Your task to perform on an android device: find which apps use the phone's location Image 0: 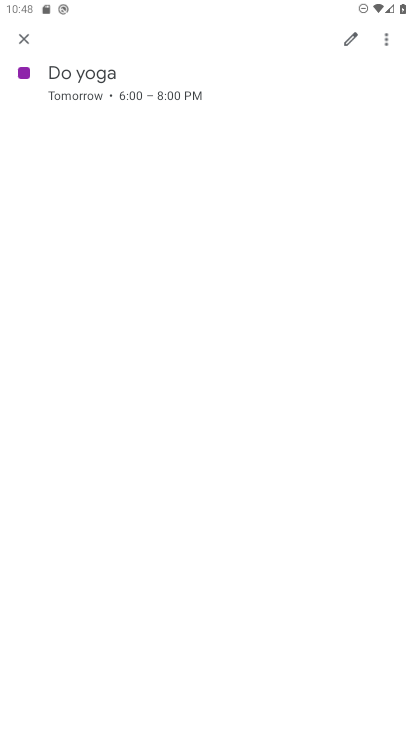
Step 0: press home button
Your task to perform on an android device: find which apps use the phone's location Image 1: 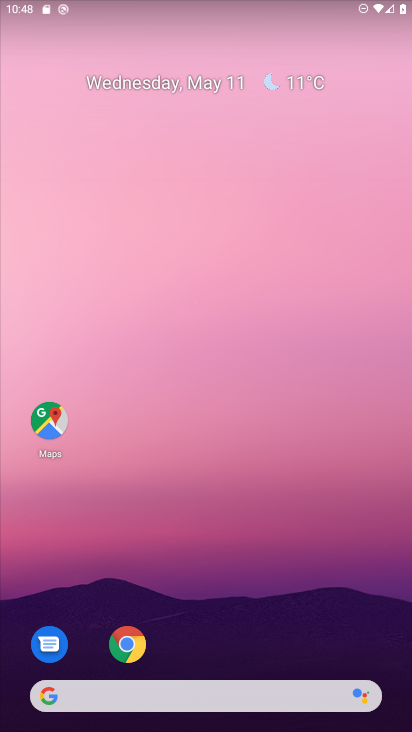
Step 1: drag from (358, 653) to (331, 6)
Your task to perform on an android device: find which apps use the phone's location Image 2: 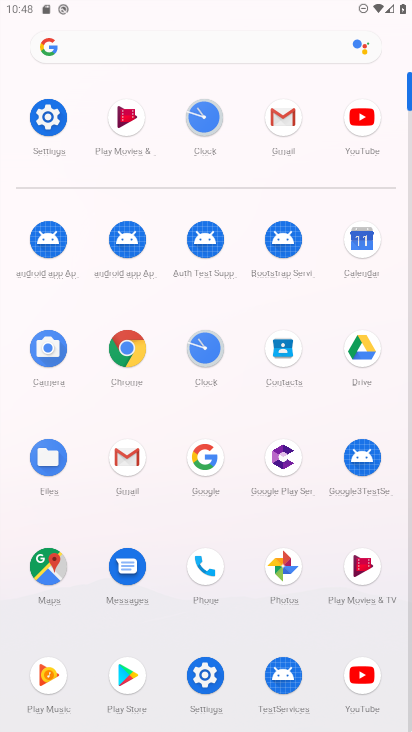
Step 2: click (47, 123)
Your task to perform on an android device: find which apps use the phone's location Image 3: 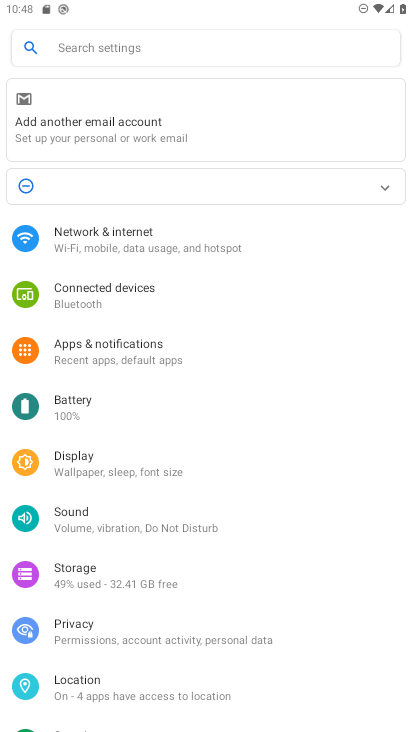
Step 3: click (85, 692)
Your task to perform on an android device: find which apps use the phone's location Image 4: 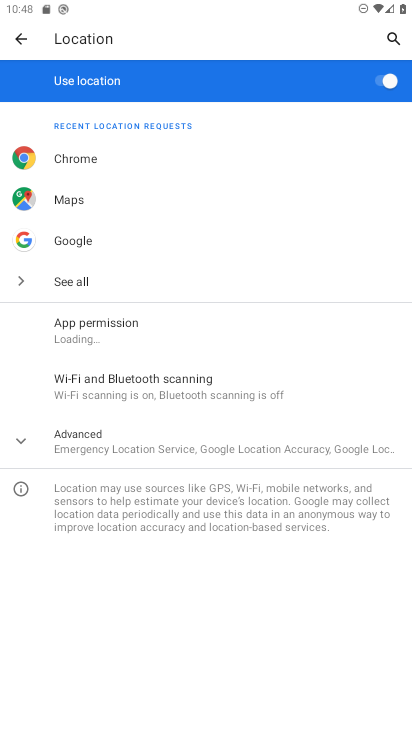
Step 4: click (74, 339)
Your task to perform on an android device: find which apps use the phone's location Image 5: 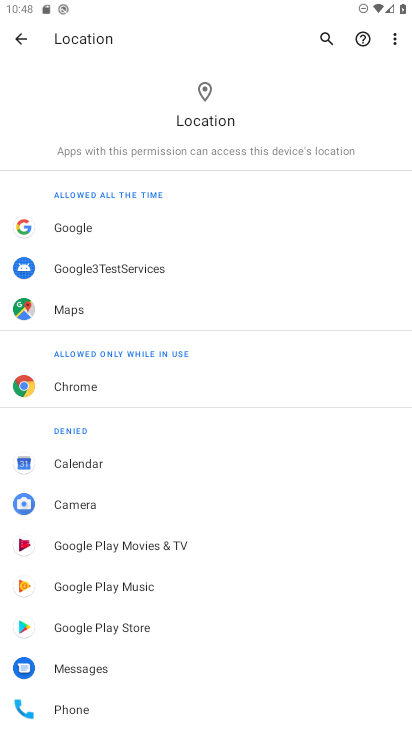
Step 5: task complete